Your task to perform on an android device: turn smart compose on in the gmail app Image 0: 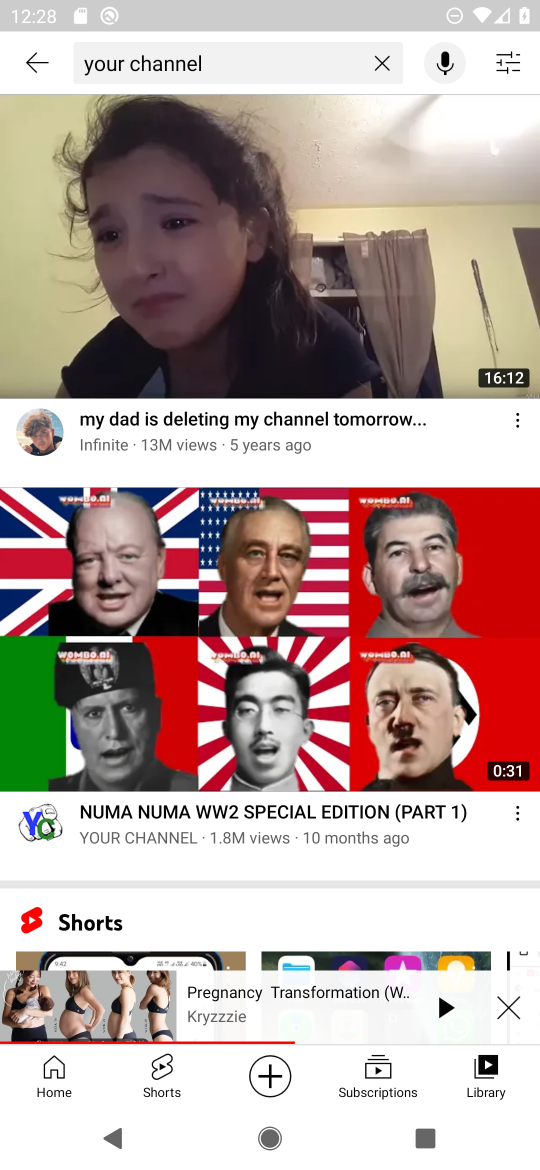
Step 0: press home button
Your task to perform on an android device: turn smart compose on in the gmail app Image 1: 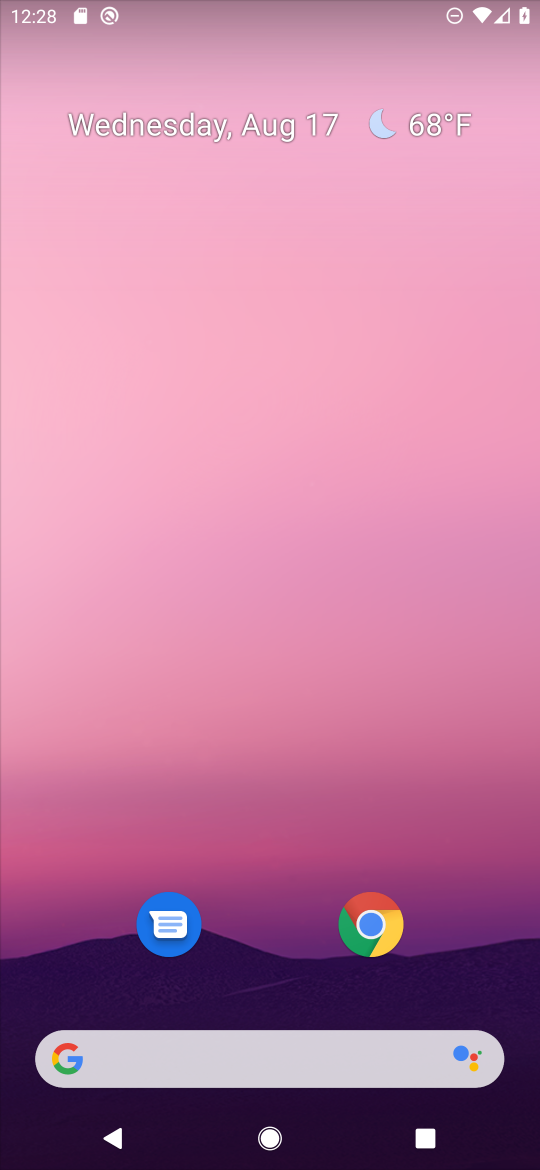
Step 1: drag from (265, 994) to (298, 102)
Your task to perform on an android device: turn smart compose on in the gmail app Image 2: 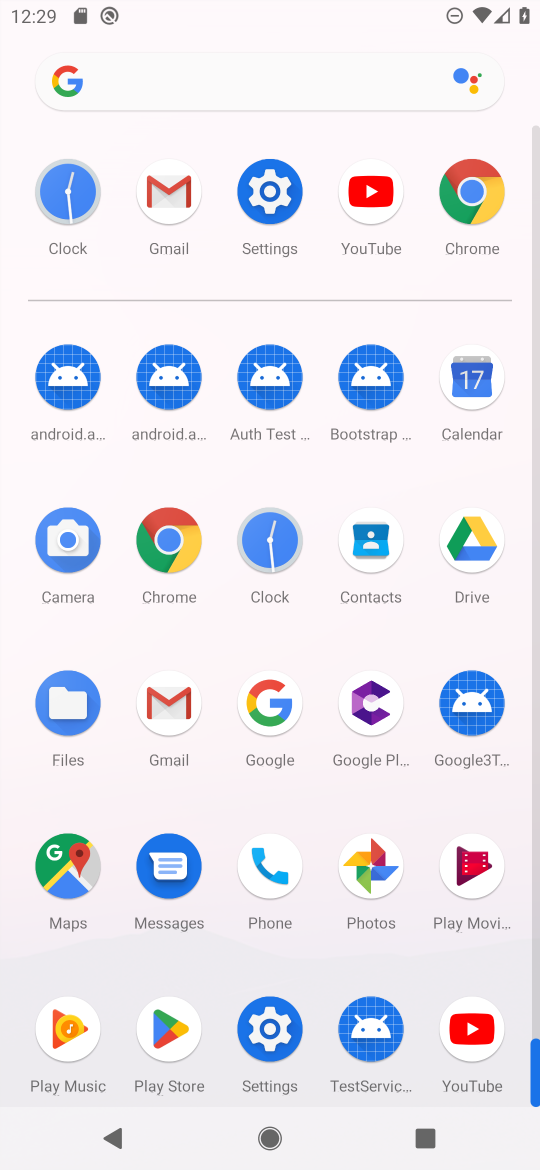
Step 2: click (191, 192)
Your task to perform on an android device: turn smart compose on in the gmail app Image 3: 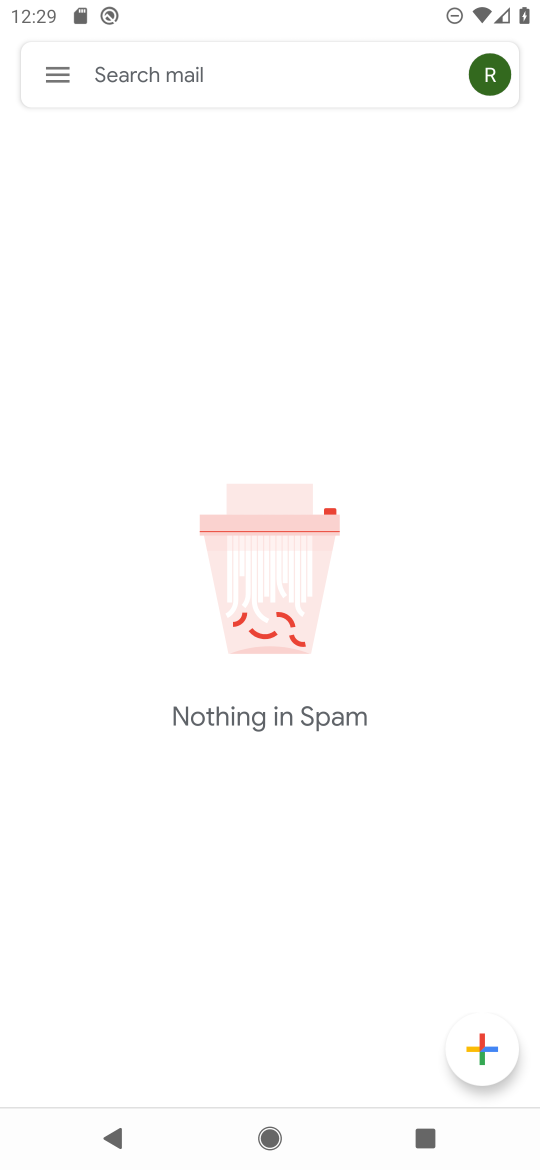
Step 3: click (55, 74)
Your task to perform on an android device: turn smart compose on in the gmail app Image 4: 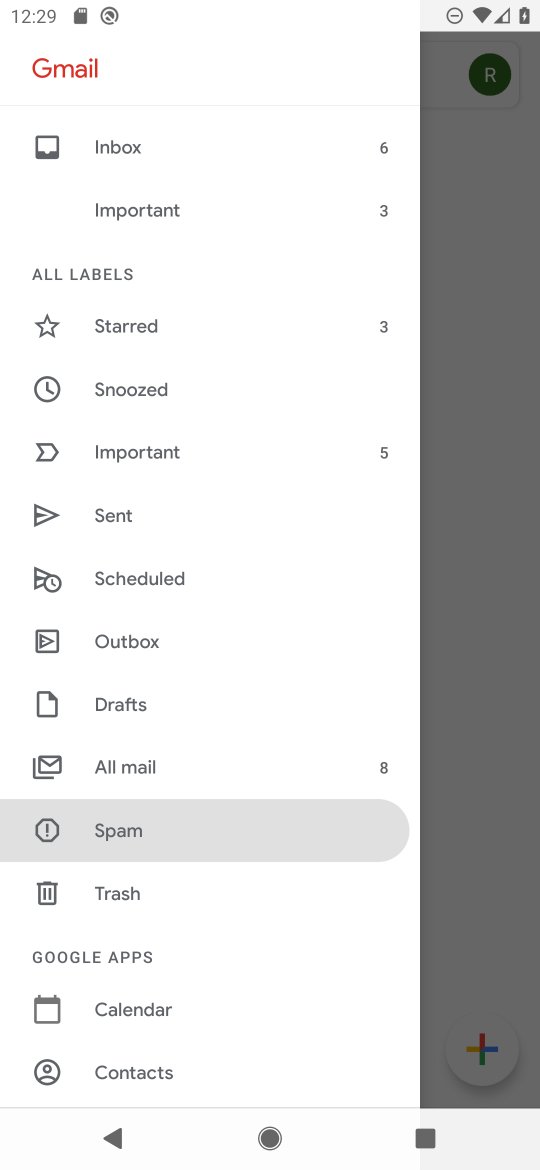
Step 4: drag from (334, 1056) to (334, 256)
Your task to perform on an android device: turn smart compose on in the gmail app Image 5: 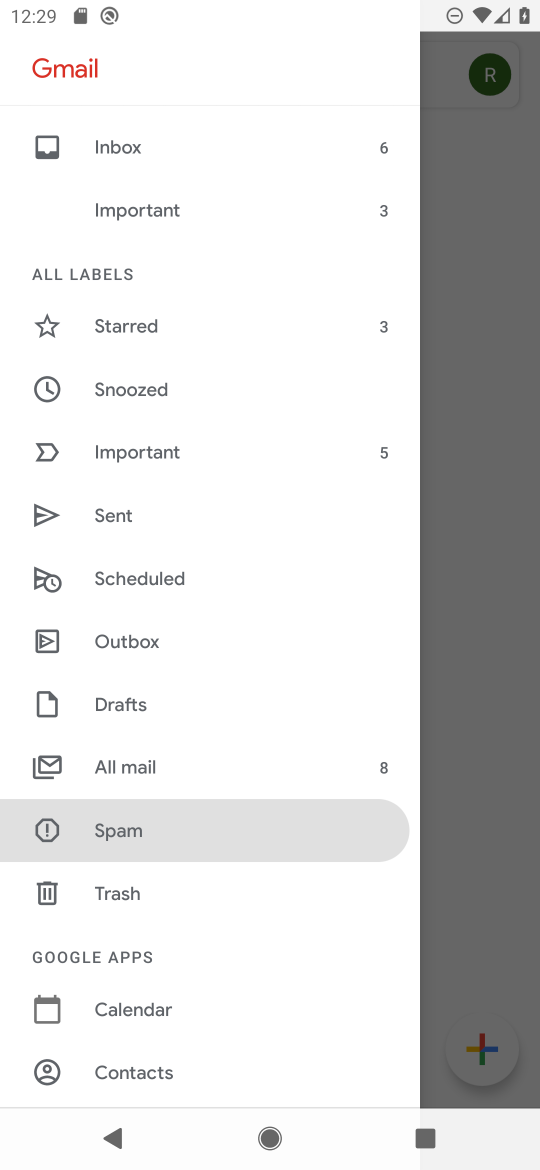
Step 5: drag from (382, 1068) to (355, 230)
Your task to perform on an android device: turn smart compose on in the gmail app Image 6: 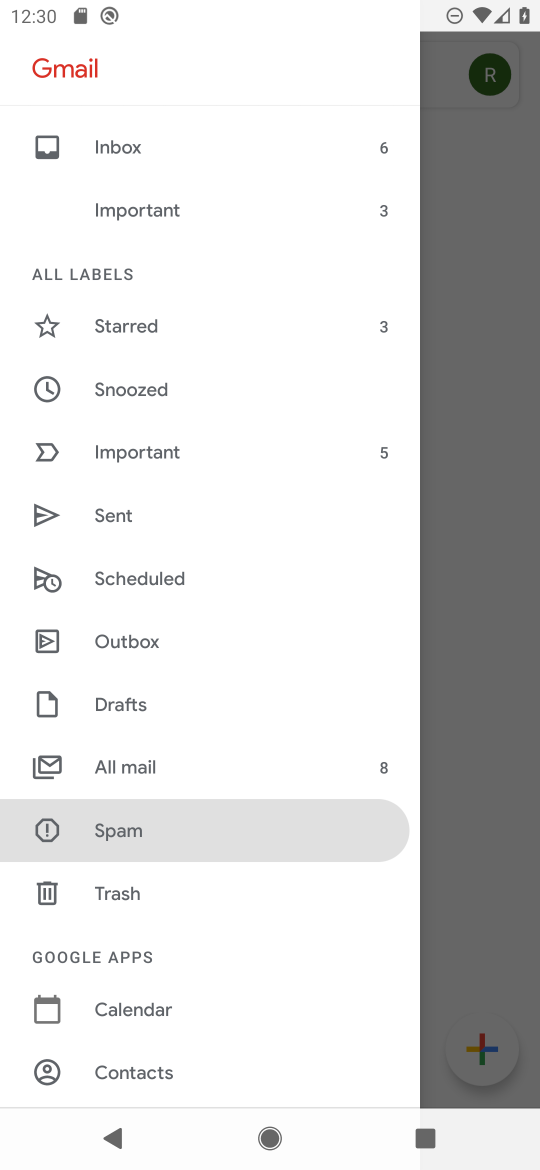
Step 6: drag from (342, 1077) to (331, 74)
Your task to perform on an android device: turn smart compose on in the gmail app Image 7: 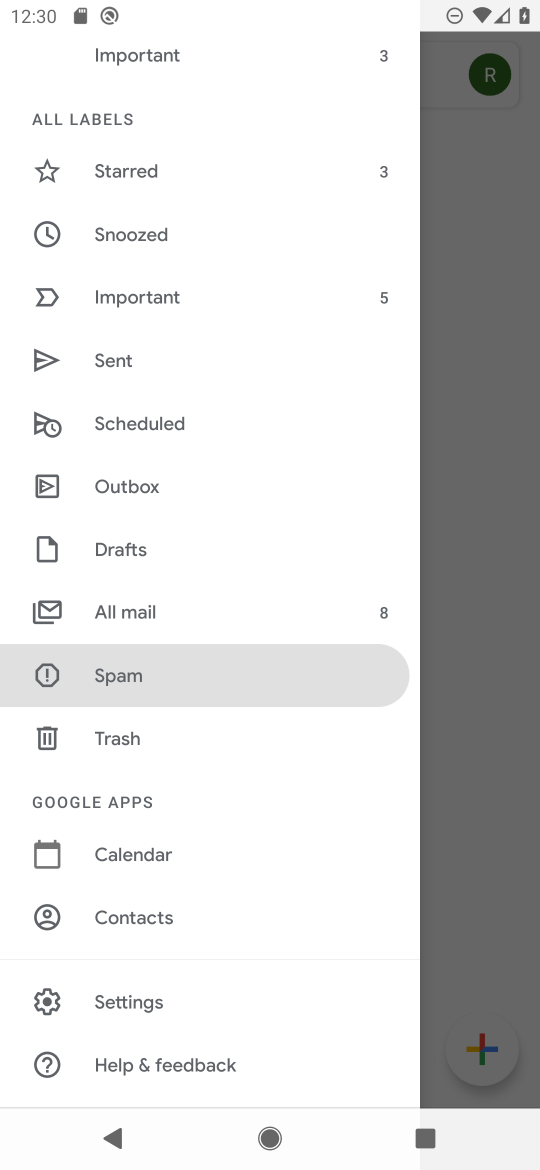
Step 7: click (118, 1007)
Your task to perform on an android device: turn smart compose on in the gmail app Image 8: 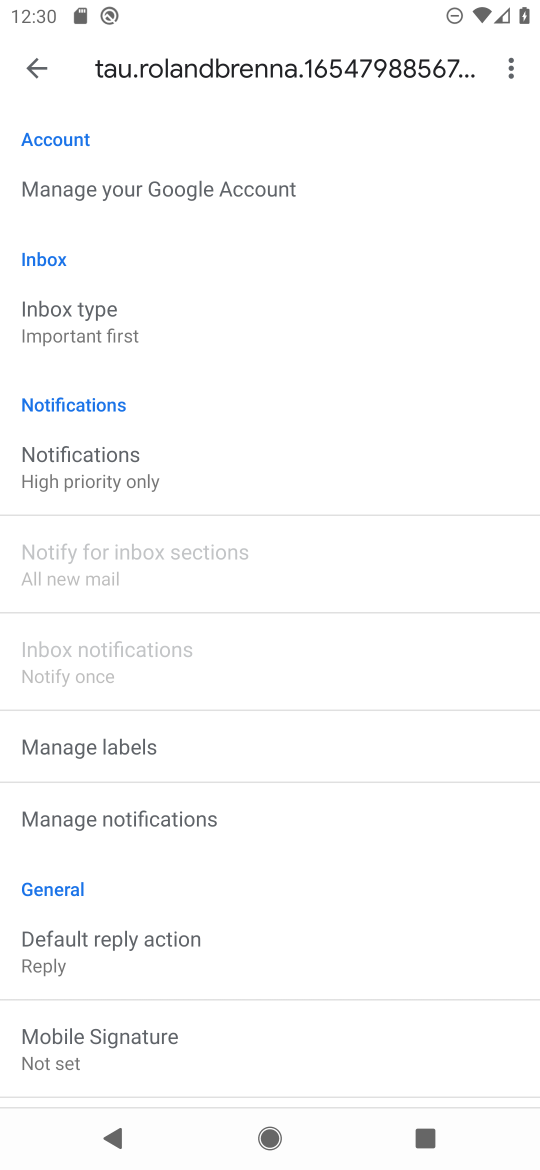
Step 8: task complete